Your task to perform on an android device: Open the calendar app, open the side menu, and click the "Day" option Image 0: 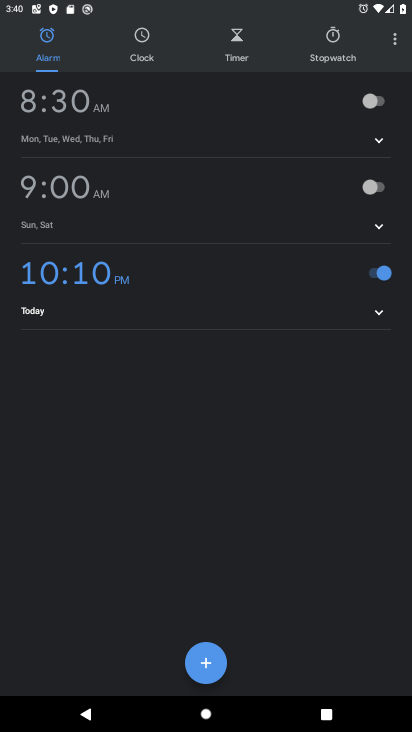
Step 0: press back button
Your task to perform on an android device: Open the calendar app, open the side menu, and click the "Day" option Image 1: 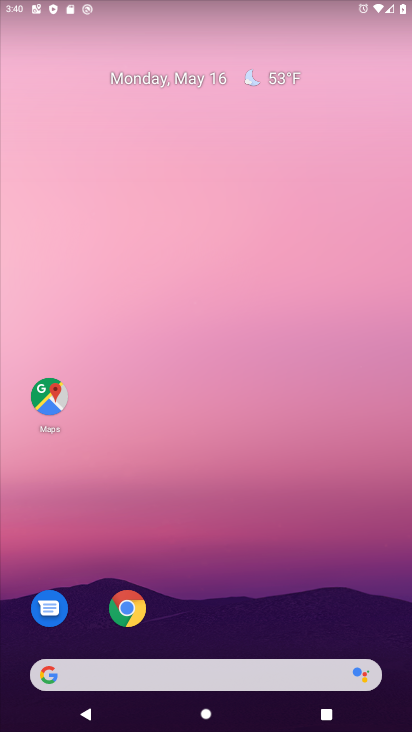
Step 1: drag from (272, 592) to (241, 53)
Your task to perform on an android device: Open the calendar app, open the side menu, and click the "Day" option Image 2: 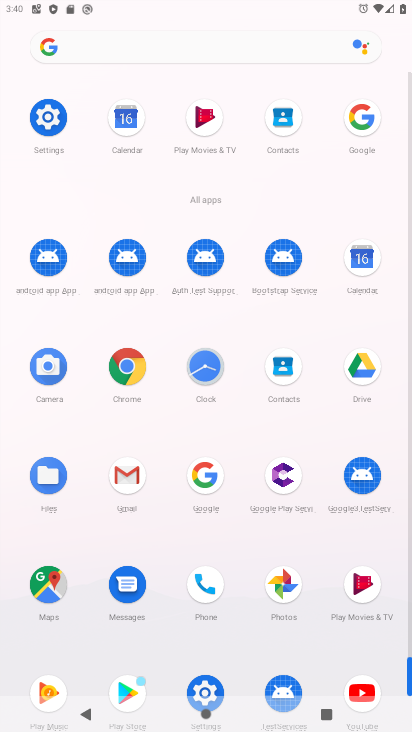
Step 2: click (360, 259)
Your task to perform on an android device: Open the calendar app, open the side menu, and click the "Day" option Image 3: 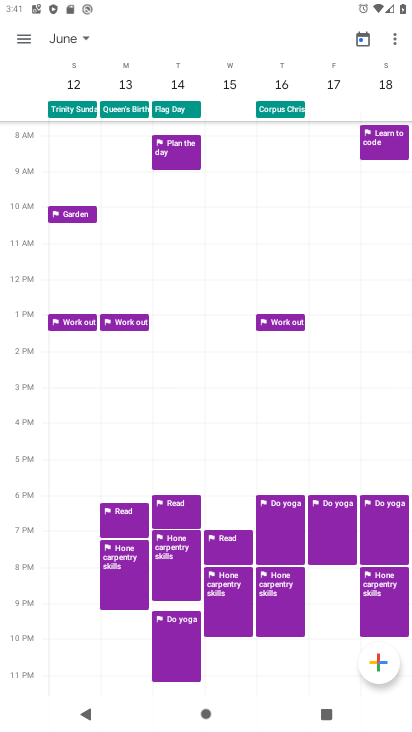
Step 3: click (20, 40)
Your task to perform on an android device: Open the calendar app, open the side menu, and click the "Day" option Image 4: 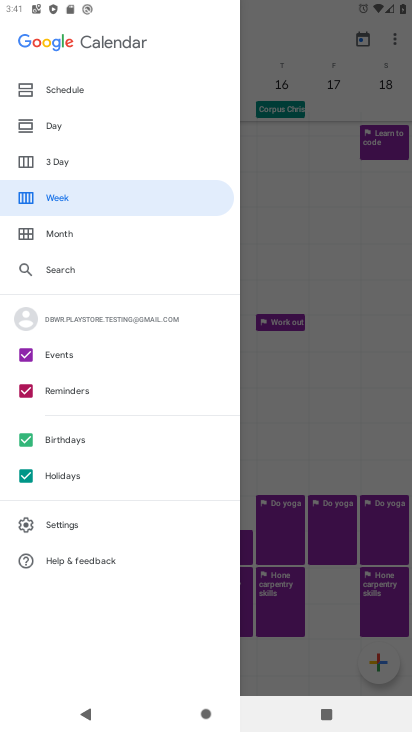
Step 4: click (55, 130)
Your task to perform on an android device: Open the calendar app, open the side menu, and click the "Day" option Image 5: 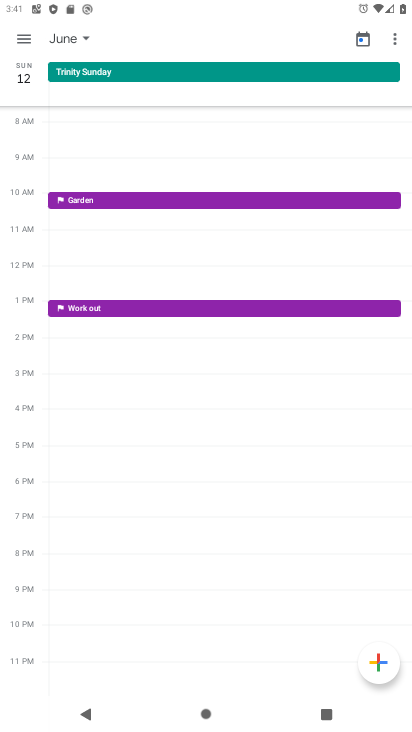
Step 5: task complete